Your task to perform on an android device: What's the weather going to be this weekend? Image 0: 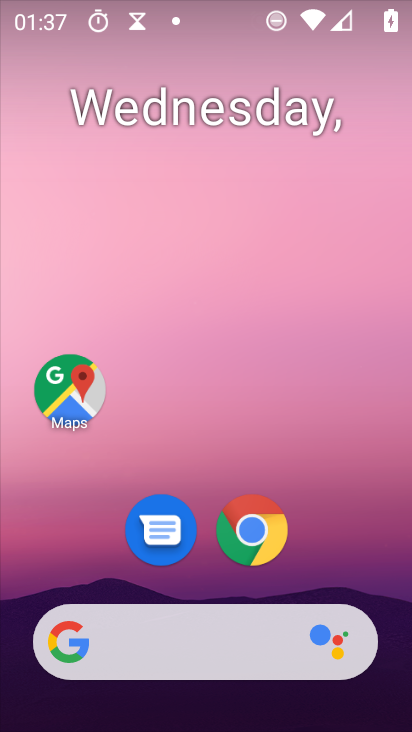
Step 0: drag from (304, 615) to (235, 0)
Your task to perform on an android device: What's the weather going to be this weekend? Image 1: 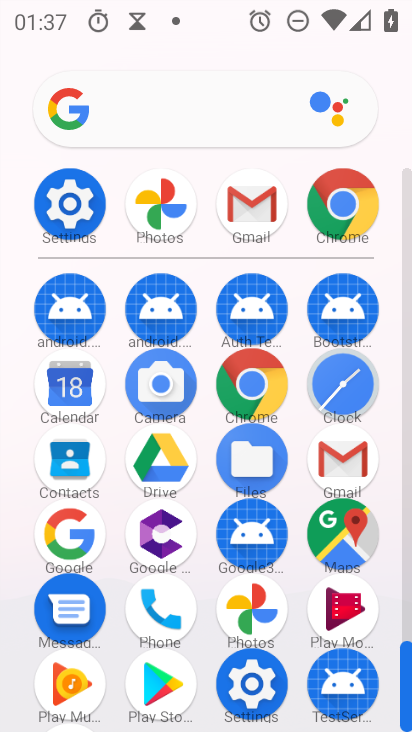
Step 1: press home button
Your task to perform on an android device: What's the weather going to be this weekend? Image 2: 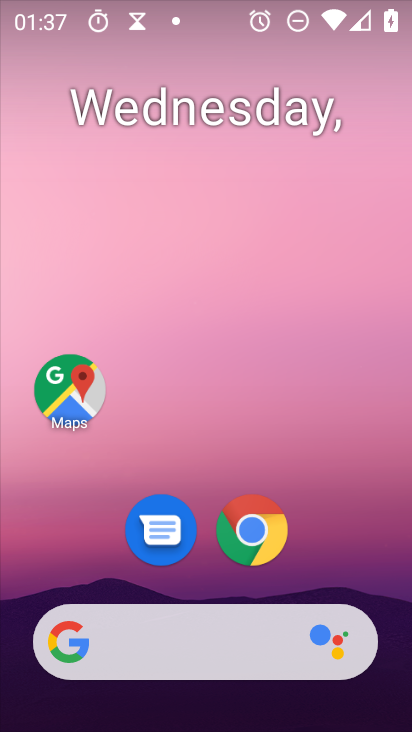
Step 2: drag from (17, 266) to (382, 267)
Your task to perform on an android device: What's the weather going to be this weekend? Image 3: 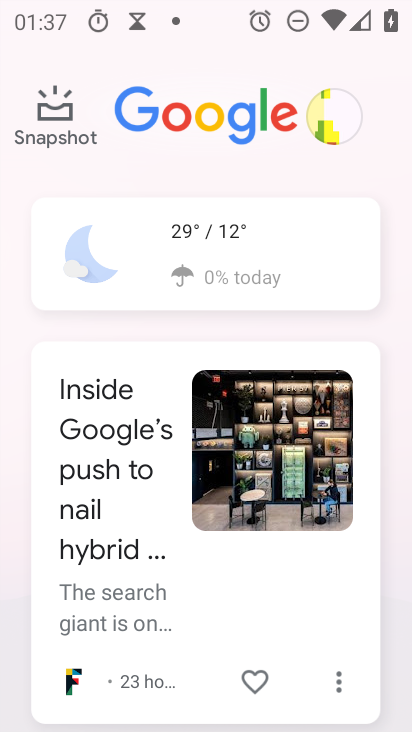
Step 3: click (126, 263)
Your task to perform on an android device: What's the weather going to be this weekend? Image 4: 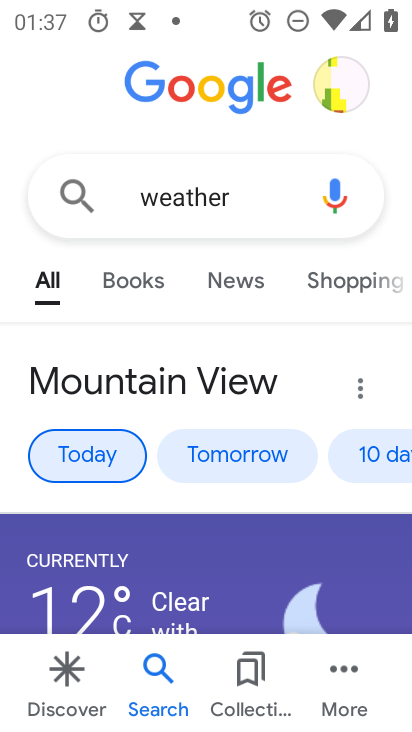
Step 4: click (404, 462)
Your task to perform on an android device: What's the weather going to be this weekend? Image 5: 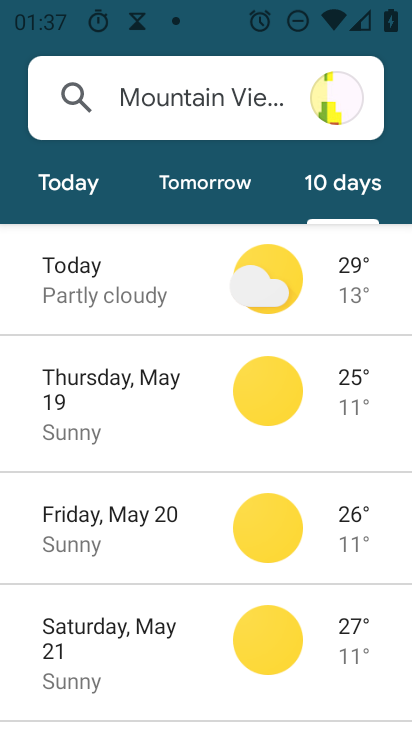
Step 5: task complete